Your task to perform on an android device: delete the emails in spam in the gmail app Image 0: 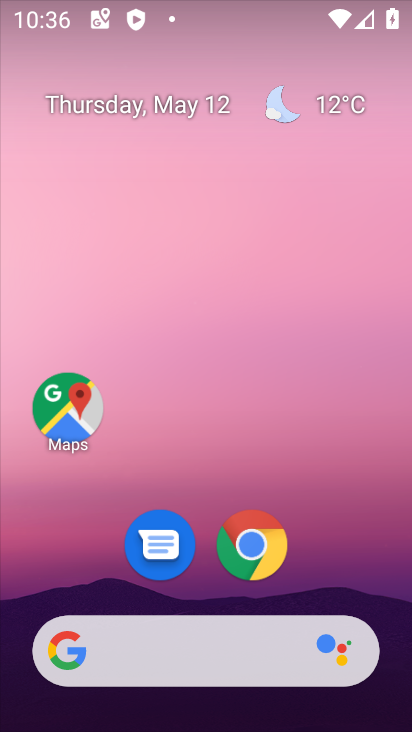
Step 0: press home button
Your task to perform on an android device: delete the emails in spam in the gmail app Image 1: 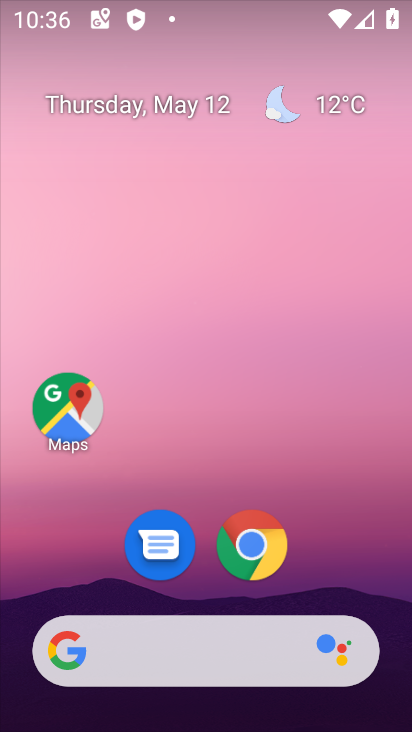
Step 1: drag from (208, 584) to (203, 50)
Your task to perform on an android device: delete the emails in spam in the gmail app Image 2: 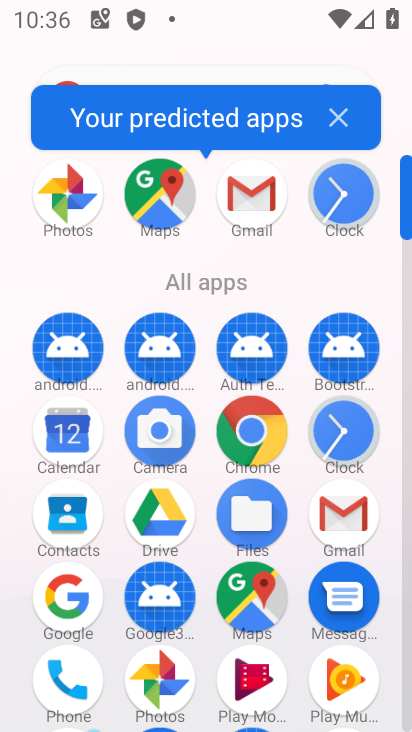
Step 2: click (252, 187)
Your task to perform on an android device: delete the emails in spam in the gmail app Image 3: 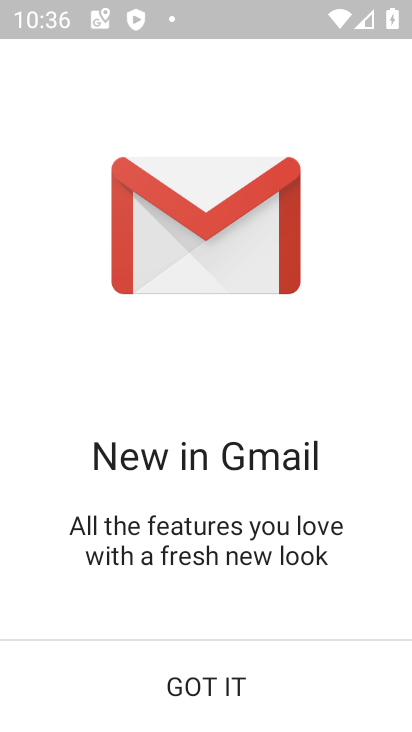
Step 3: click (203, 708)
Your task to perform on an android device: delete the emails in spam in the gmail app Image 4: 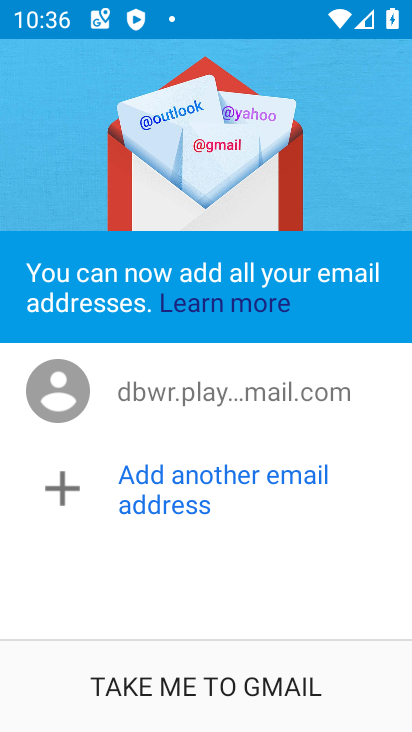
Step 4: click (209, 699)
Your task to perform on an android device: delete the emails in spam in the gmail app Image 5: 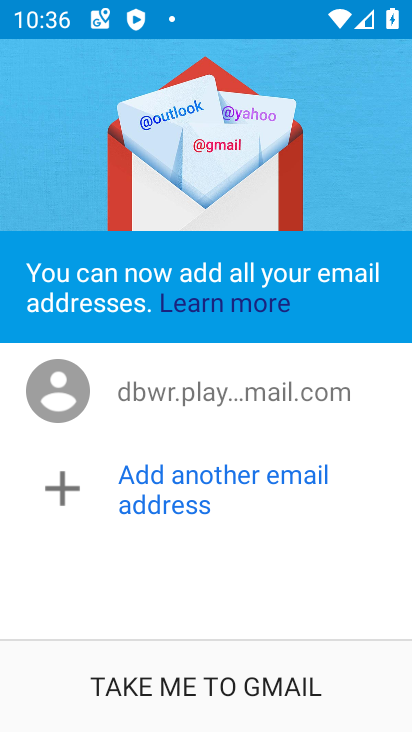
Step 5: click (209, 699)
Your task to perform on an android device: delete the emails in spam in the gmail app Image 6: 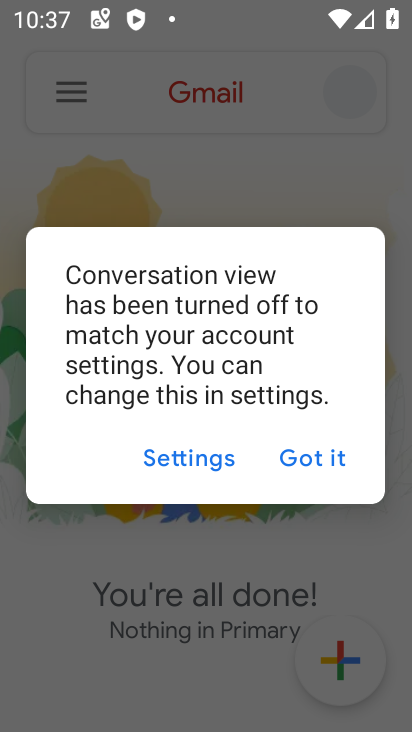
Step 6: click (308, 461)
Your task to perform on an android device: delete the emails in spam in the gmail app Image 7: 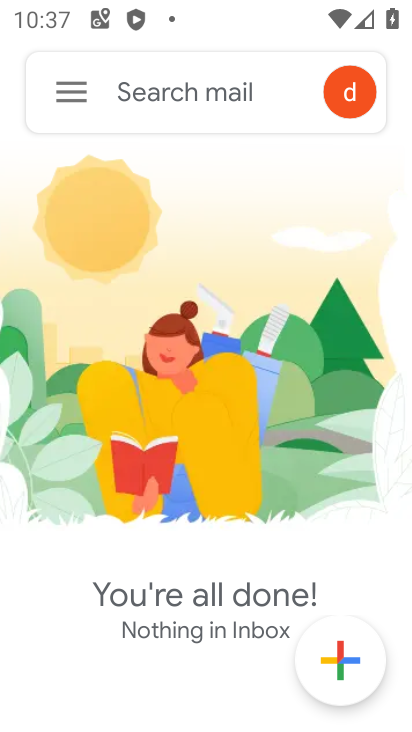
Step 7: click (63, 90)
Your task to perform on an android device: delete the emails in spam in the gmail app Image 8: 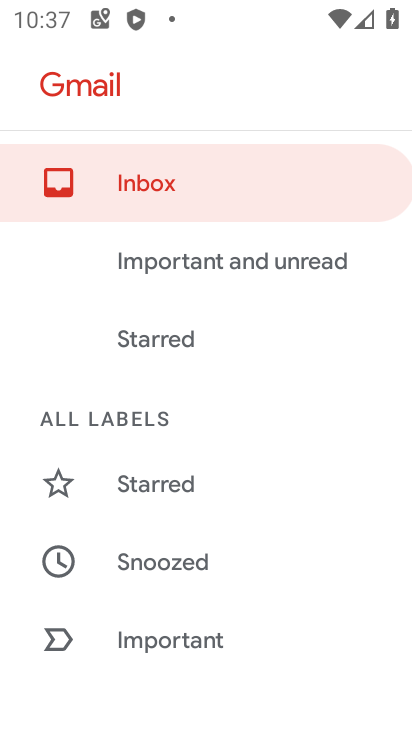
Step 8: drag from (138, 611) to (139, 50)
Your task to perform on an android device: delete the emails in spam in the gmail app Image 9: 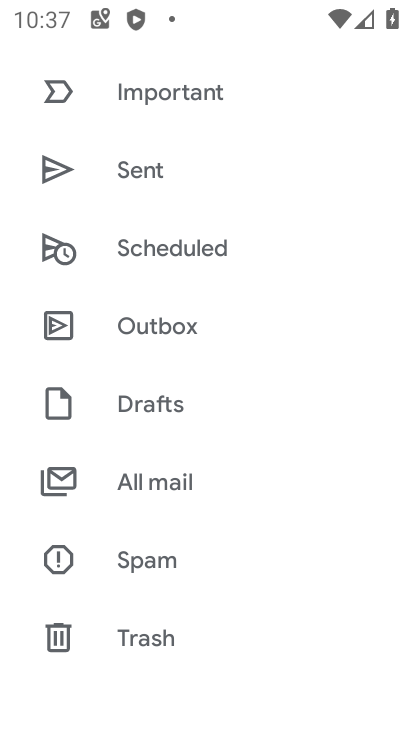
Step 9: click (97, 568)
Your task to perform on an android device: delete the emails in spam in the gmail app Image 10: 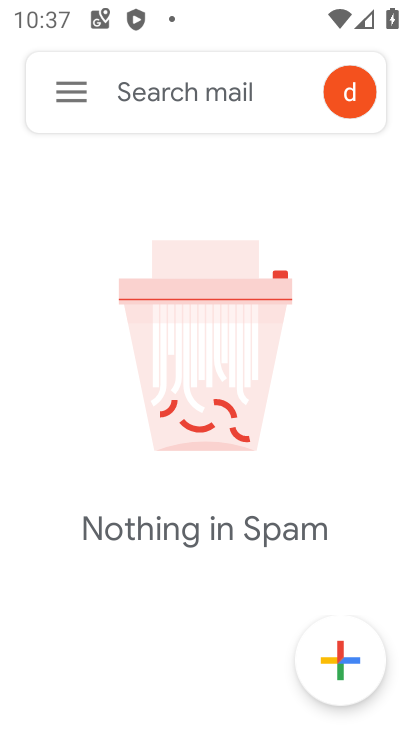
Step 10: task complete